Your task to perform on an android device: Go to Reddit.com Image 0: 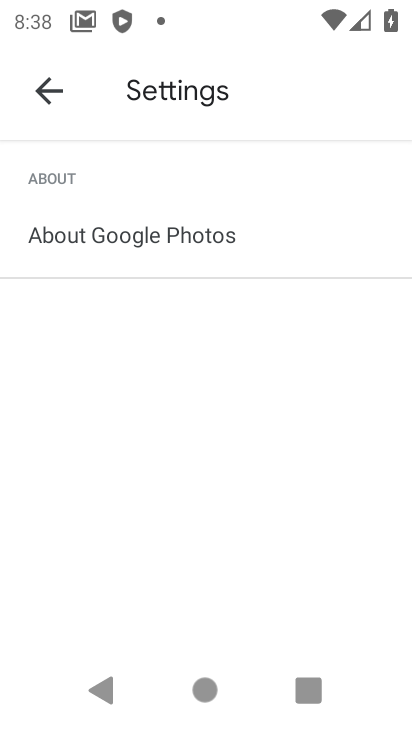
Step 0: press home button
Your task to perform on an android device: Go to Reddit.com Image 1: 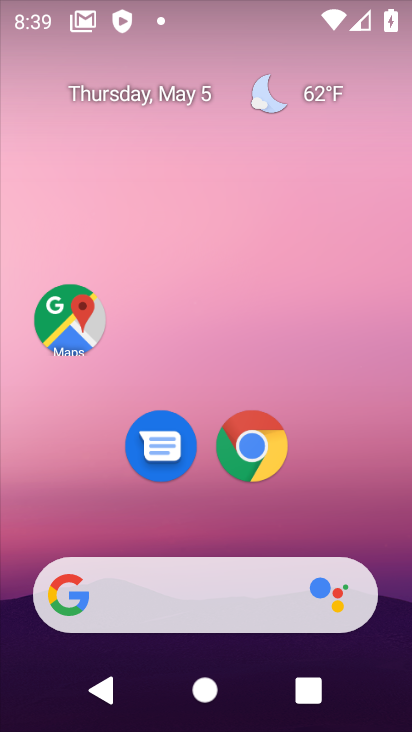
Step 1: drag from (202, 636) to (337, 203)
Your task to perform on an android device: Go to Reddit.com Image 2: 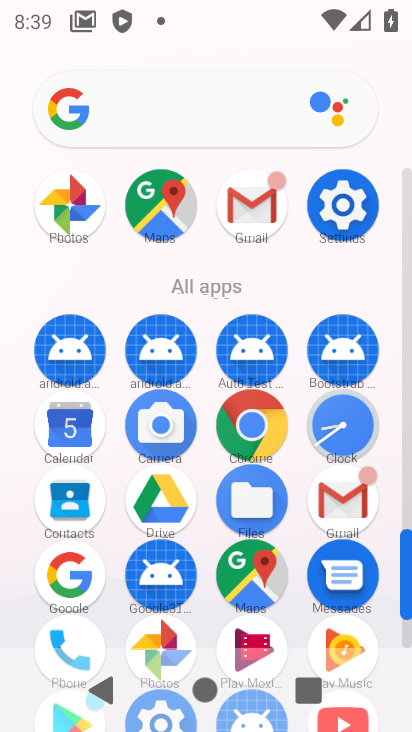
Step 2: click (252, 423)
Your task to perform on an android device: Go to Reddit.com Image 3: 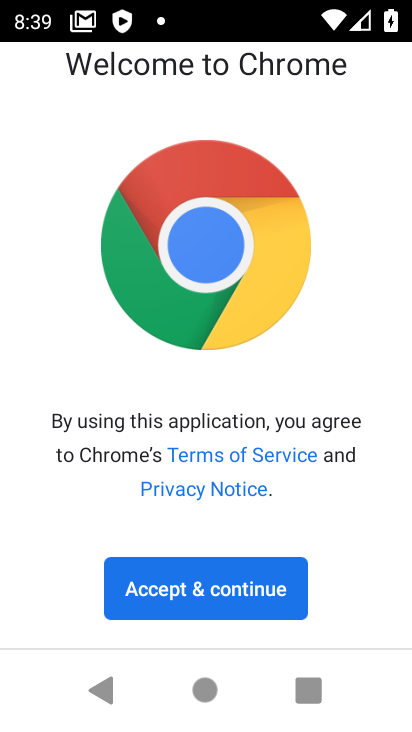
Step 3: click (152, 624)
Your task to perform on an android device: Go to Reddit.com Image 4: 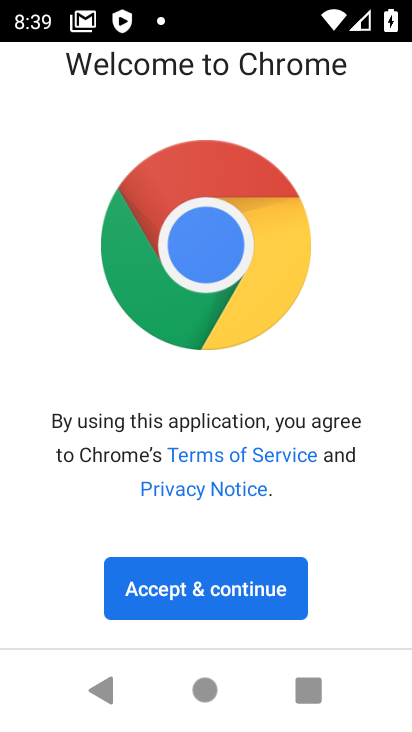
Step 4: click (163, 611)
Your task to perform on an android device: Go to Reddit.com Image 5: 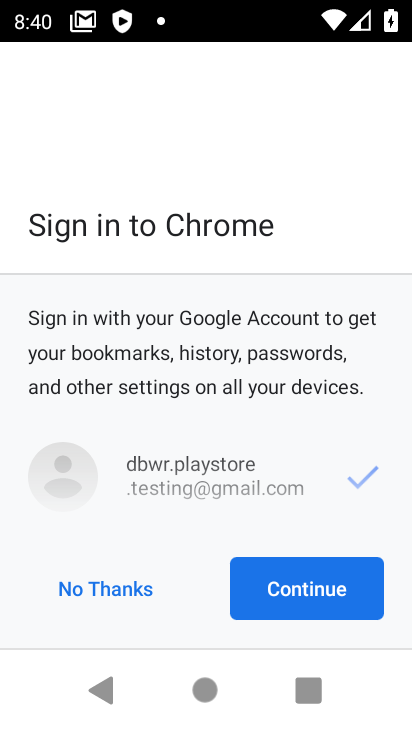
Step 5: click (316, 595)
Your task to perform on an android device: Go to Reddit.com Image 6: 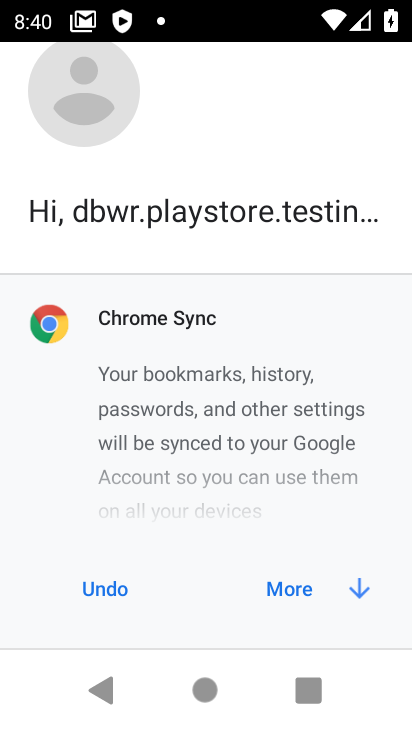
Step 6: click (347, 590)
Your task to perform on an android device: Go to Reddit.com Image 7: 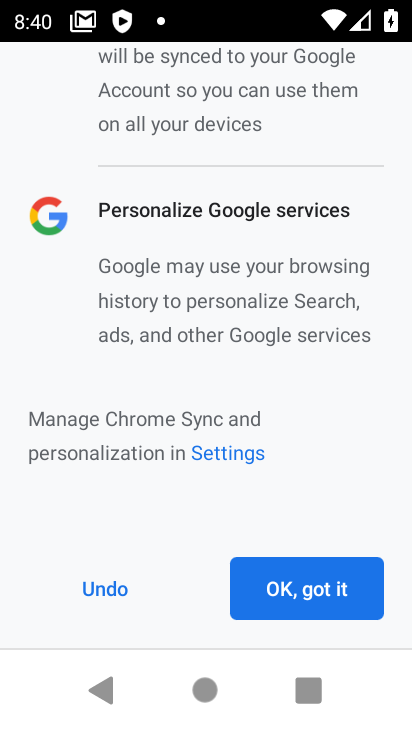
Step 7: click (348, 589)
Your task to perform on an android device: Go to Reddit.com Image 8: 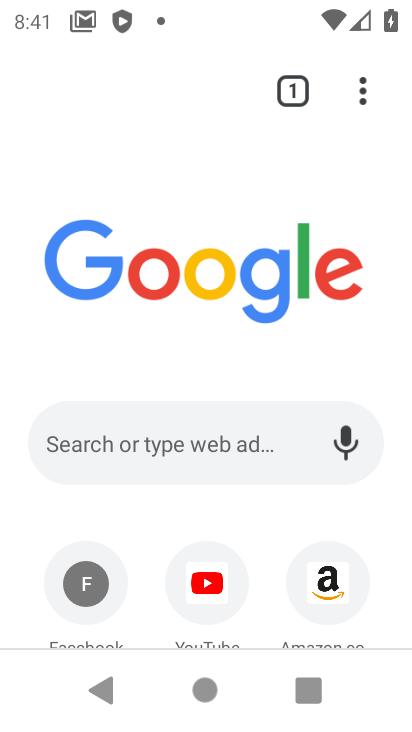
Step 8: click (176, 444)
Your task to perform on an android device: Go to Reddit.com Image 9: 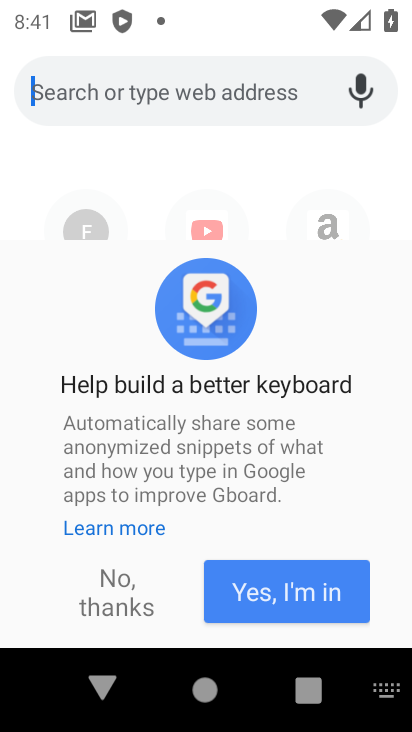
Step 9: click (107, 586)
Your task to perform on an android device: Go to Reddit.com Image 10: 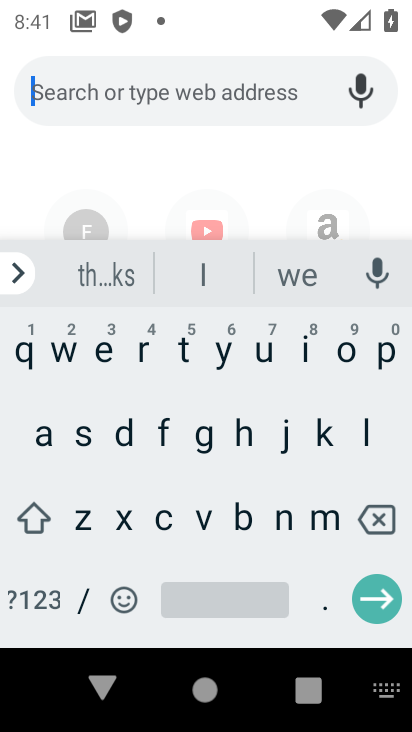
Step 10: click (140, 348)
Your task to perform on an android device: Go to Reddit.com Image 11: 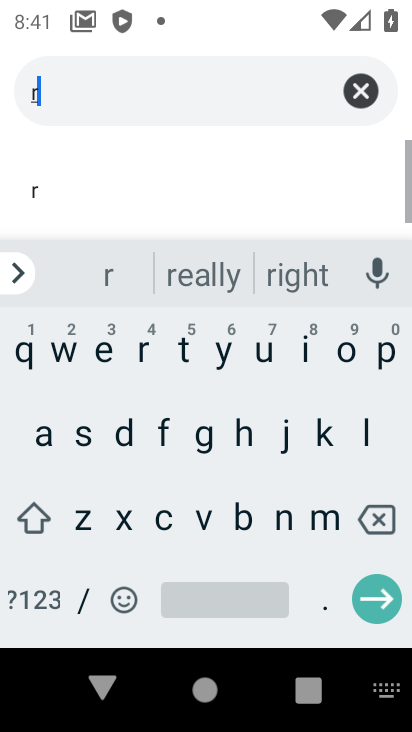
Step 11: click (94, 356)
Your task to perform on an android device: Go to Reddit.com Image 12: 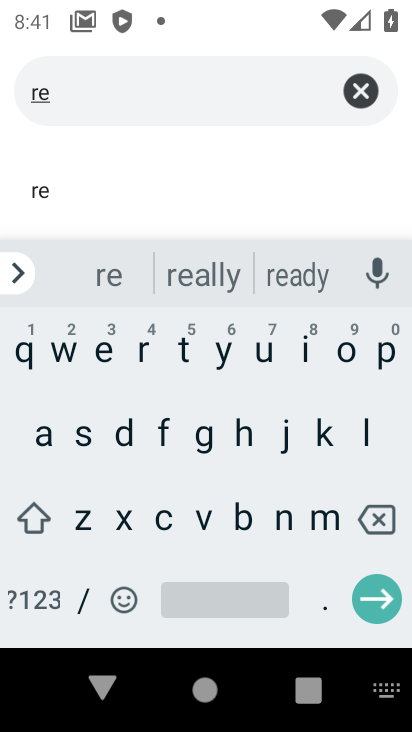
Step 12: click (123, 435)
Your task to perform on an android device: Go to Reddit.com Image 13: 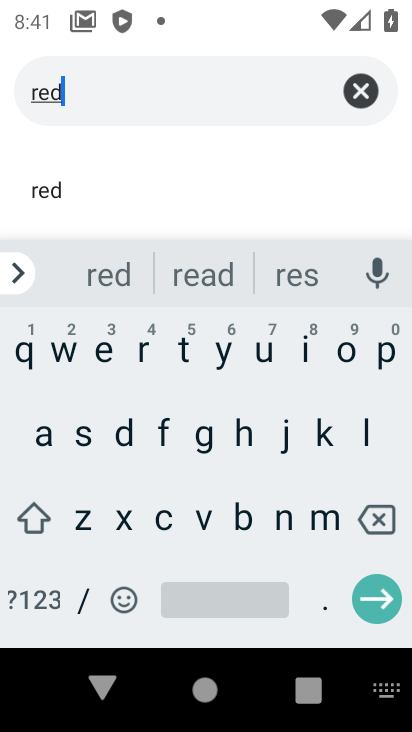
Step 13: click (125, 432)
Your task to perform on an android device: Go to Reddit.com Image 14: 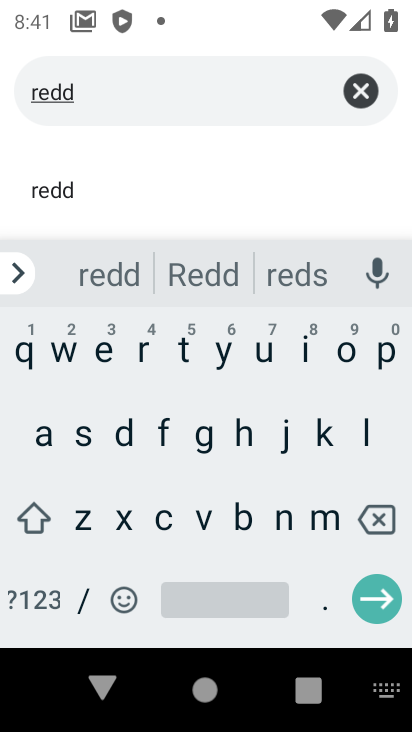
Step 14: click (305, 357)
Your task to perform on an android device: Go to Reddit.com Image 15: 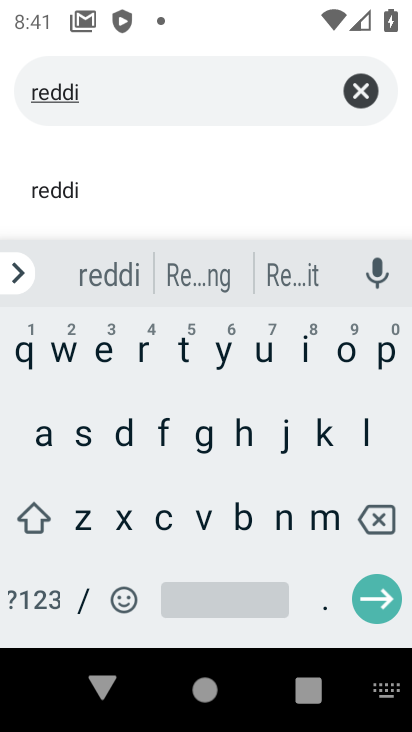
Step 15: click (182, 348)
Your task to perform on an android device: Go to Reddit.com Image 16: 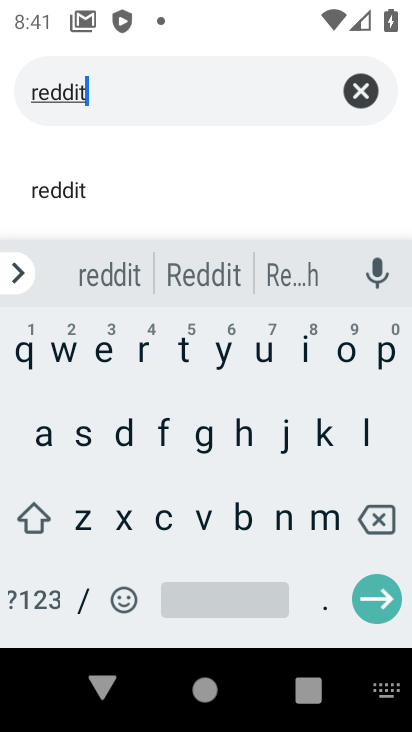
Step 16: click (324, 607)
Your task to perform on an android device: Go to Reddit.com Image 17: 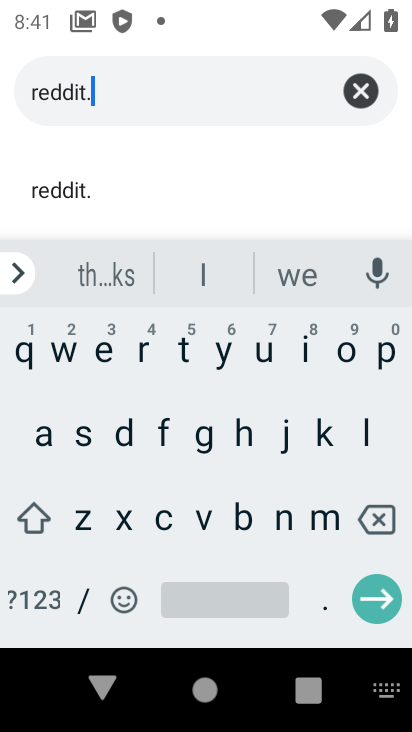
Step 17: click (162, 527)
Your task to perform on an android device: Go to Reddit.com Image 18: 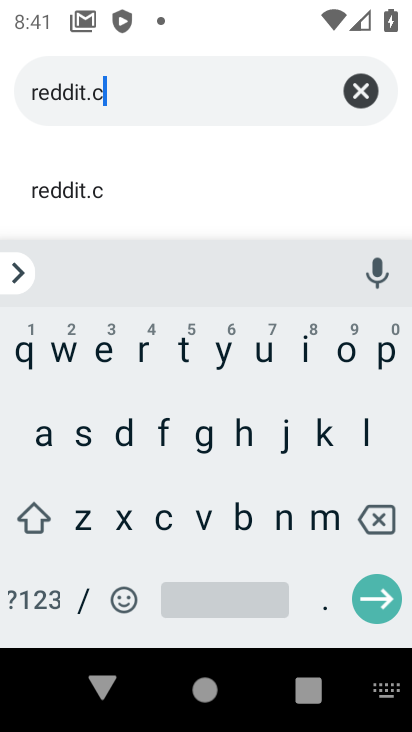
Step 18: click (343, 363)
Your task to perform on an android device: Go to Reddit.com Image 19: 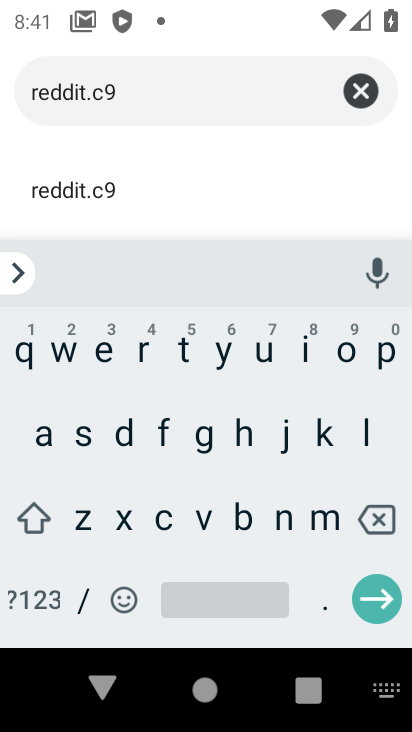
Step 19: click (374, 524)
Your task to perform on an android device: Go to Reddit.com Image 20: 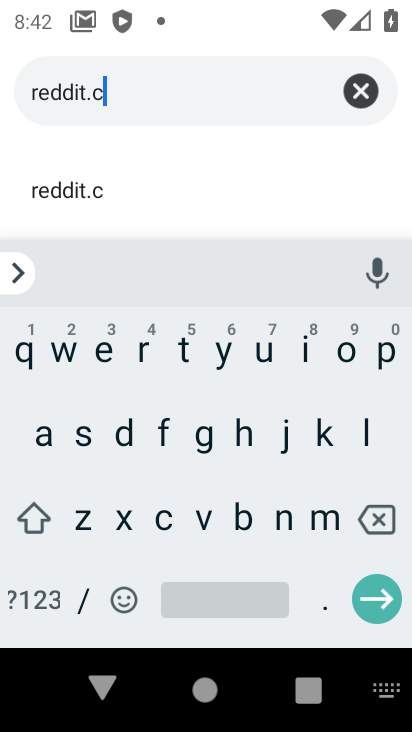
Step 20: click (348, 358)
Your task to perform on an android device: Go to Reddit.com Image 21: 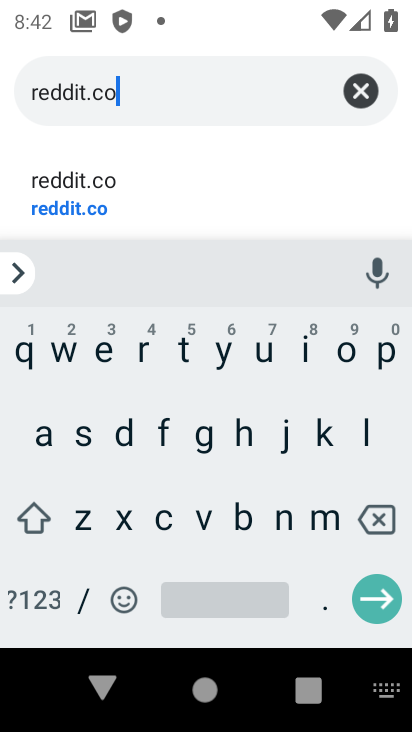
Step 21: click (322, 513)
Your task to perform on an android device: Go to Reddit.com Image 22: 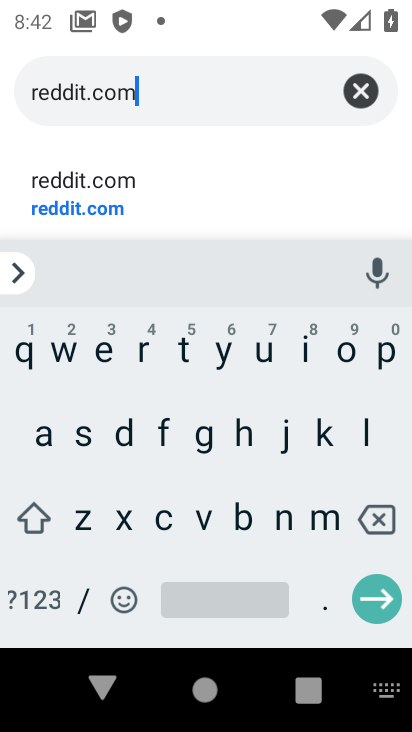
Step 22: click (382, 591)
Your task to perform on an android device: Go to Reddit.com Image 23: 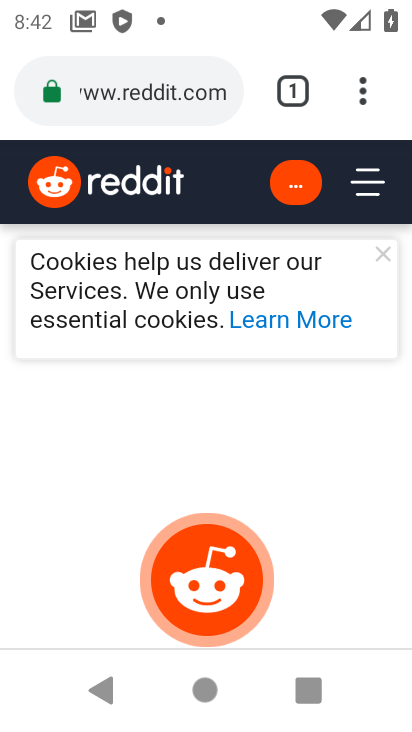
Step 23: task complete